Your task to perform on an android device: What's the weather? Image 0: 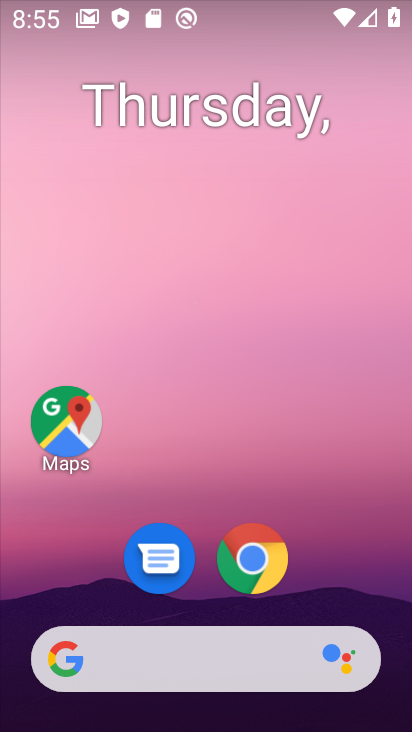
Step 0: drag from (6, 132) to (404, 181)
Your task to perform on an android device: What's the weather? Image 1: 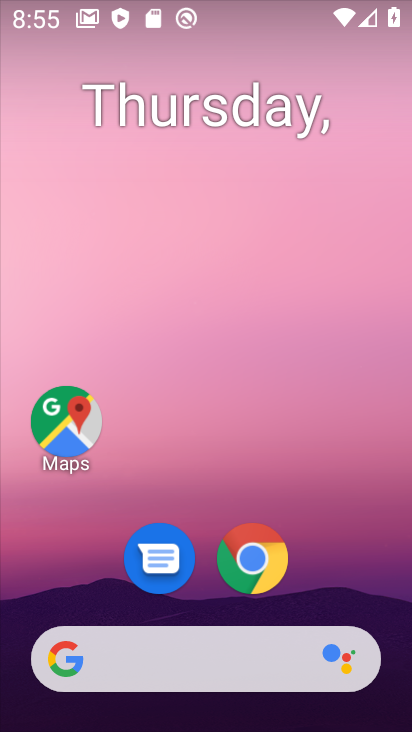
Step 1: drag from (6, 148) to (405, 326)
Your task to perform on an android device: What's the weather? Image 2: 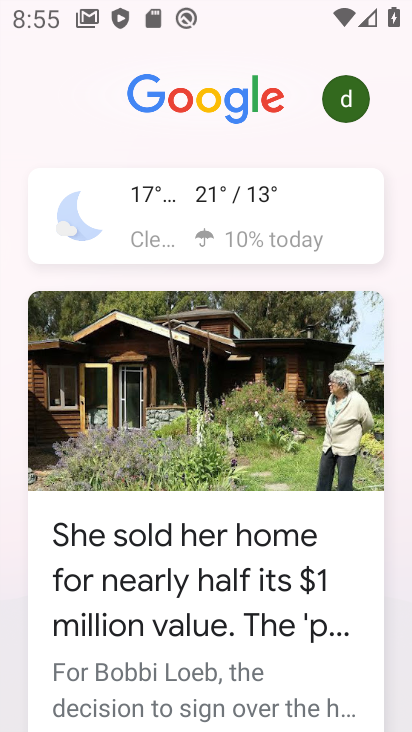
Step 2: click (233, 216)
Your task to perform on an android device: What's the weather? Image 3: 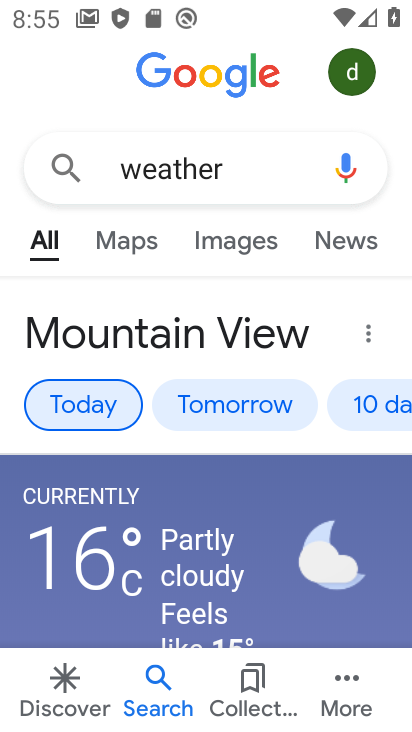
Step 3: task complete